Your task to perform on an android device: Search for Italian restaurants on Maps Image 0: 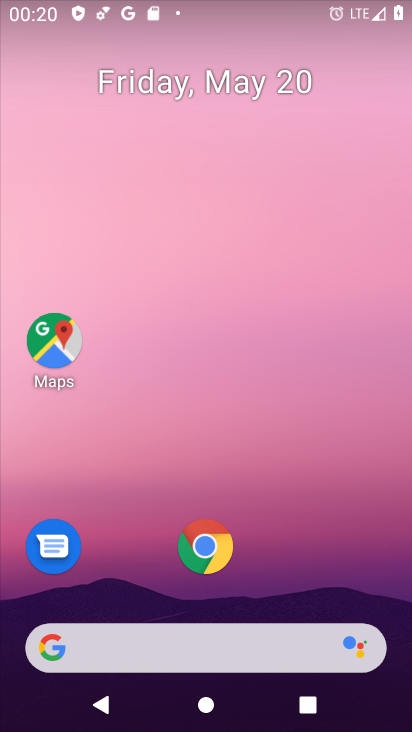
Step 0: click (61, 347)
Your task to perform on an android device: Search for Italian restaurants on Maps Image 1: 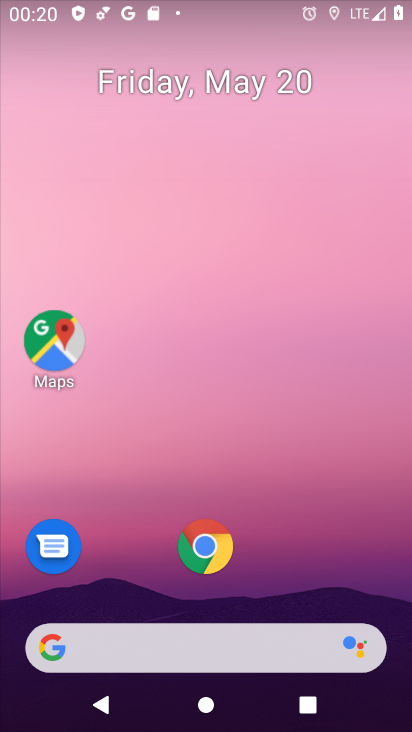
Step 1: click (58, 340)
Your task to perform on an android device: Search for Italian restaurants on Maps Image 2: 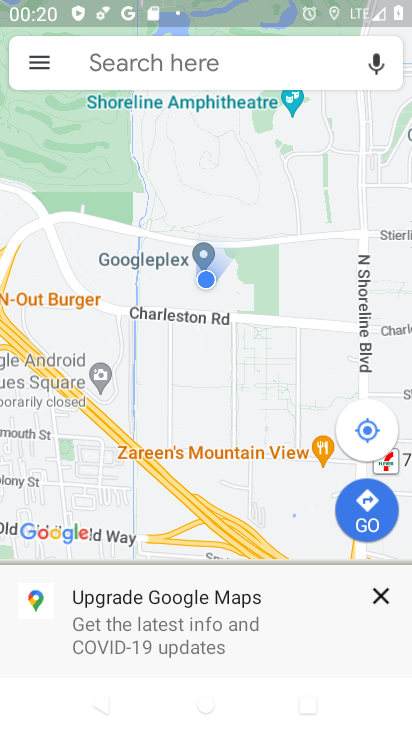
Step 2: click (192, 62)
Your task to perform on an android device: Search for Italian restaurants on Maps Image 3: 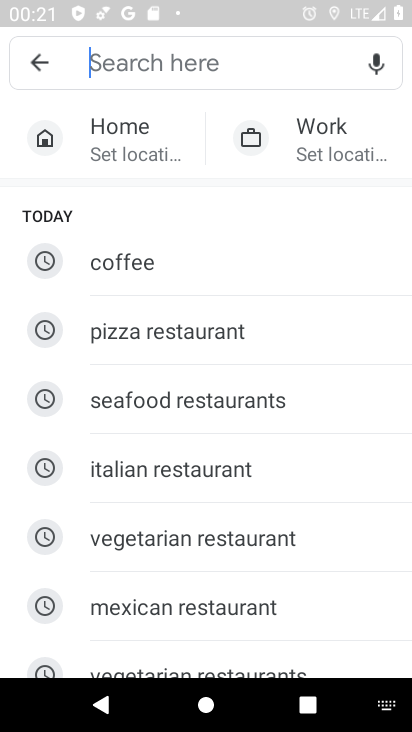
Step 3: type "Italian restaurants"
Your task to perform on an android device: Search for Italian restaurants on Maps Image 4: 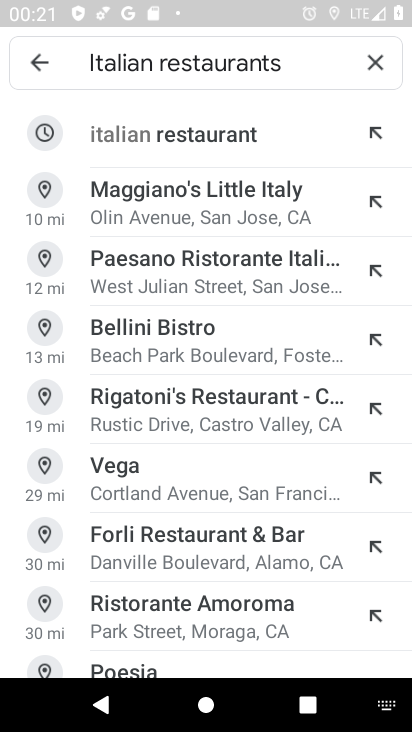
Step 4: press enter
Your task to perform on an android device: Search for Italian restaurants on Maps Image 5: 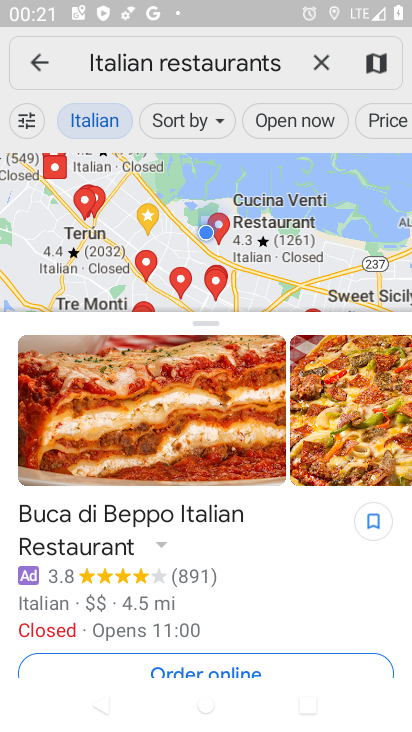
Step 5: task complete